Your task to perform on an android device: What's on my calendar today? Image 0: 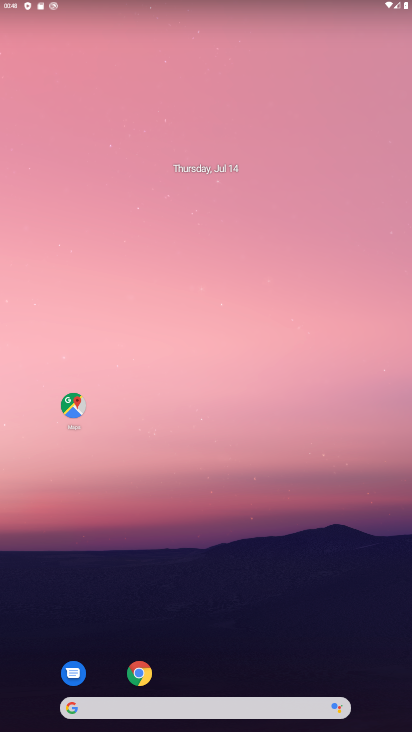
Step 0: drag from (325, 653) to (229, 112)
Your task to perform on an android device: What's on my calendar today? Image 1: 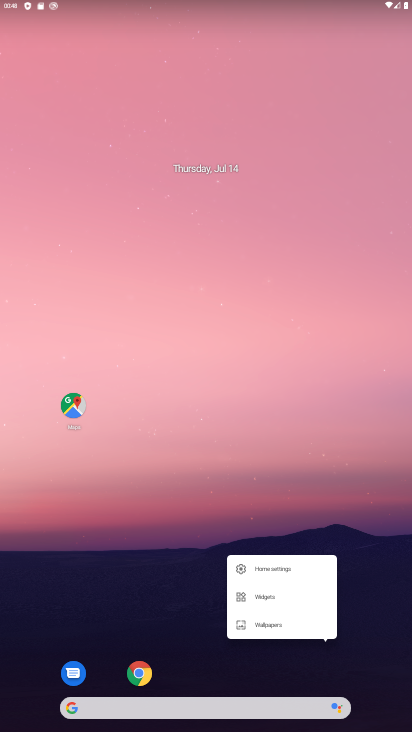
Step 1: click (207, 328)
Your task to perform on an android device: What's on my calendar today? Image 2: 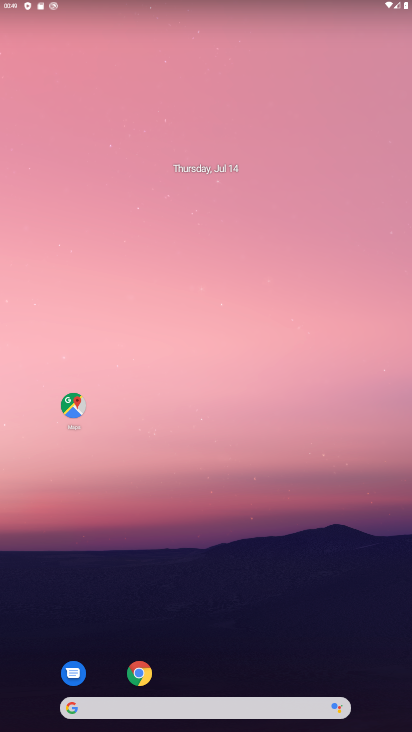
Step 2: drag from (233, 654) to (223, 326)
Your task to perform on an android device: What's on my calendar today? Image 3: 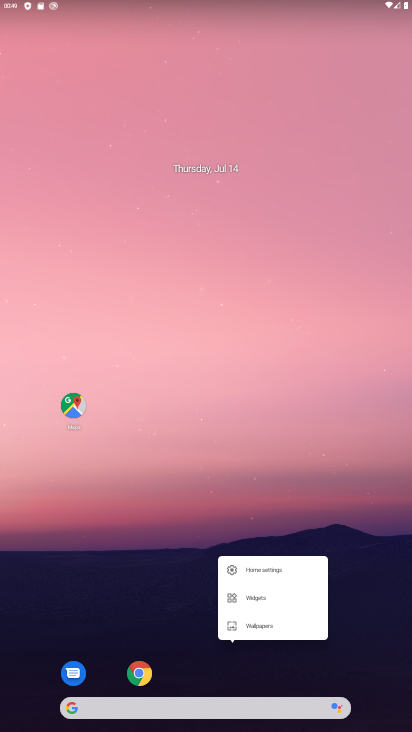
Step 3: click (191, 401)
Your task to perform on an android device: What's on my calendar today? Image 4: 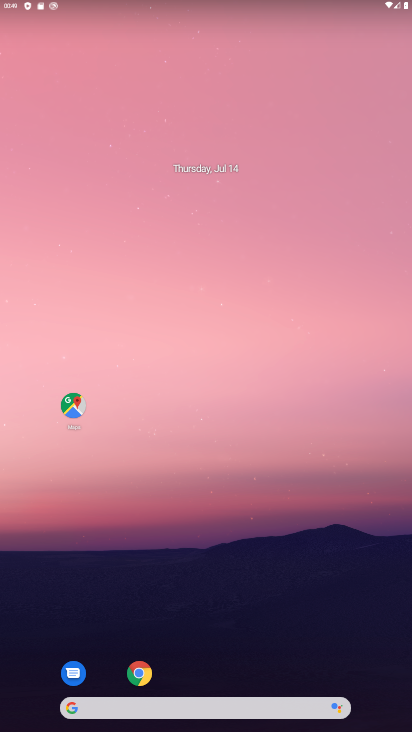
Step 4: drag from (223, 665) to (224, 221)
Your task to perform on an android device: What's on my calendar today? Image 5: 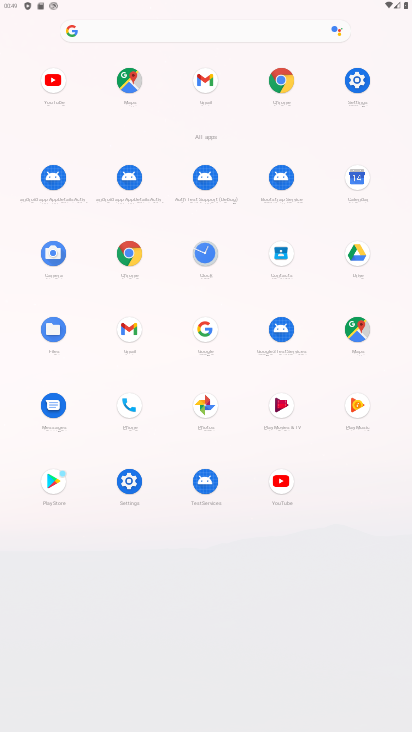
Step 5: click (360, 180)
Your task to perform on an android device: What's on my calendar today? Image 6: 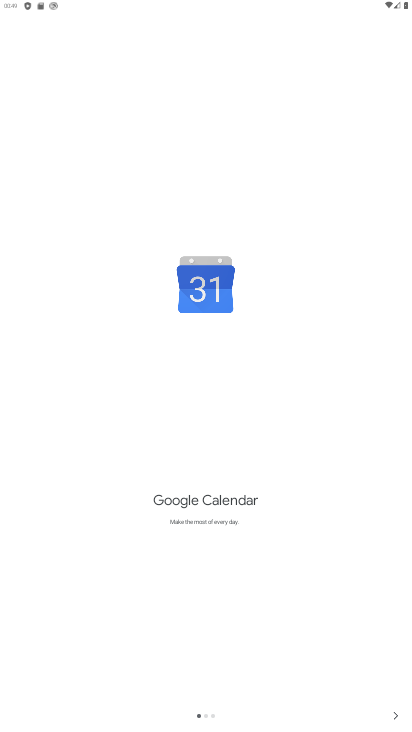
Step 6: click (399, 722)
Your task to perform on an android device: What's on my calendar today? Image 7: 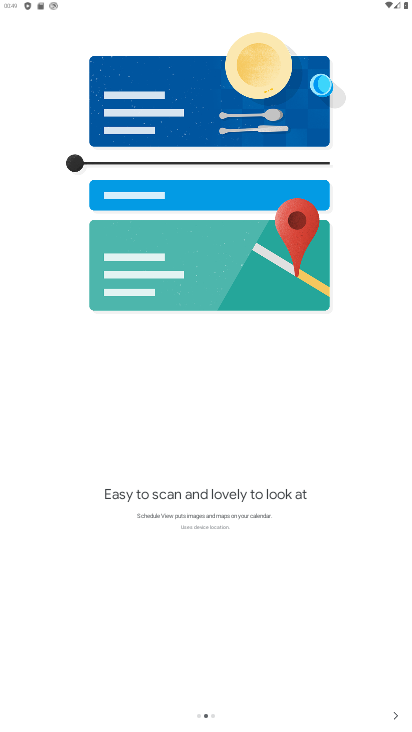
Step 7: click (399, 722)
Your task to perform on an android device: What's on my calendar today? Image 8: 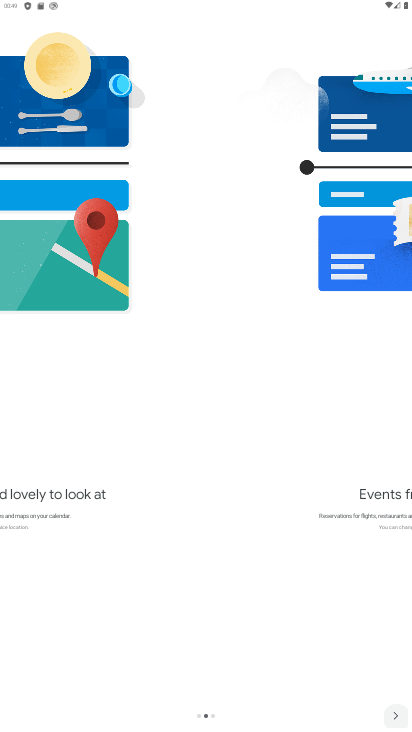
Step 8: click (399, 722)
Your task to perform on an android device: What's on my calendar today? Image 9: 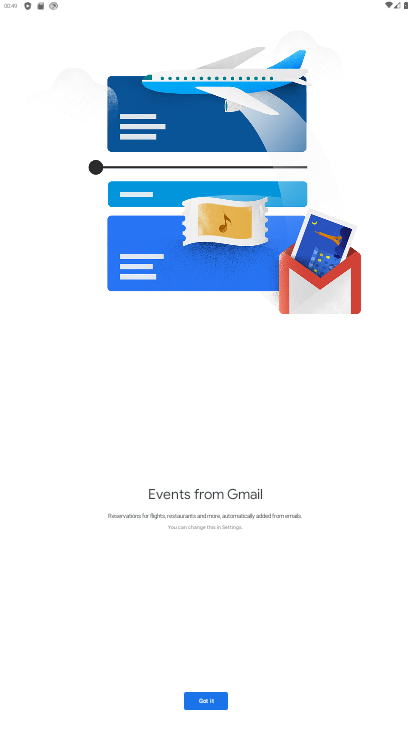
Step 9: click (210, 697)
Your task to perform on an android device: What's on my calendar today? Image 10: 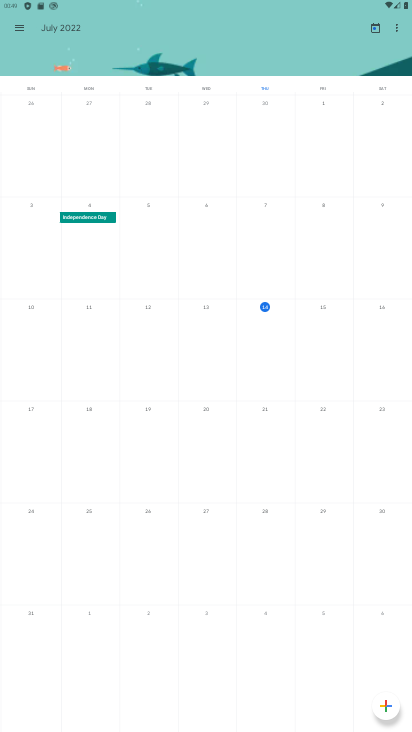
Step 10: task complete